Your task to perform on an android device: read, delete, or share a saved page in the chrome app Image 0: 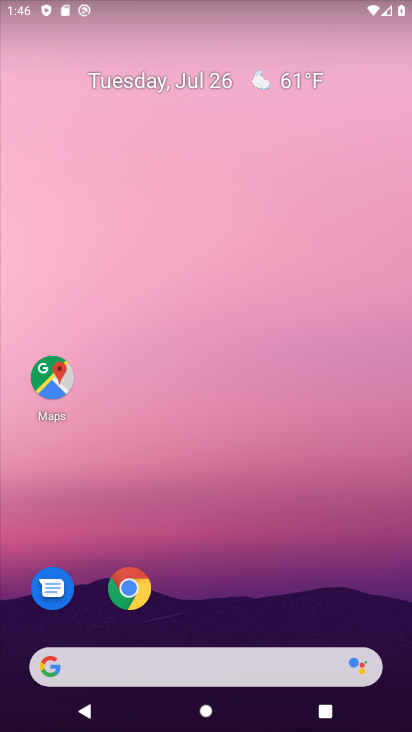
Step 0: drag from (222, 542) to (121, 0)
Your task to perform on an android device: read, delete, or share a saved page in the chrome app Image 1: 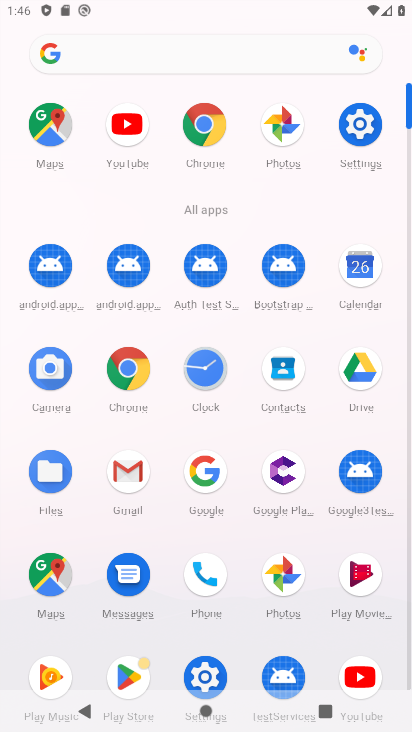
Step 1: click (193, 131)
Your task to perform on an android device: read, delete, or share a saved page in the chrome app Image 2: 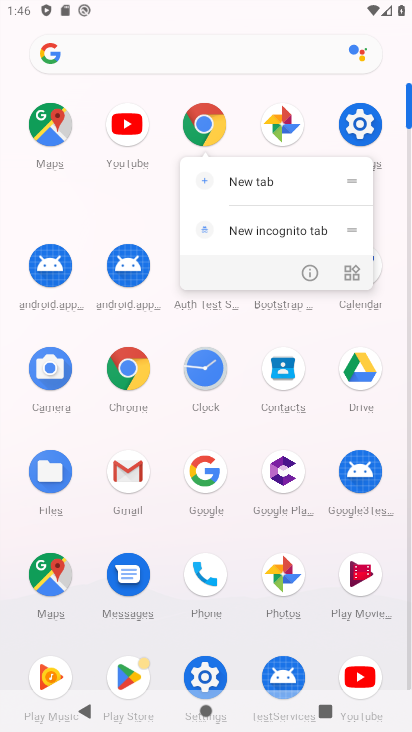
Step 2: click (193, 130)
Your task to perform on an android device: read, delete, or share a saved page in the chrome app Image 3: 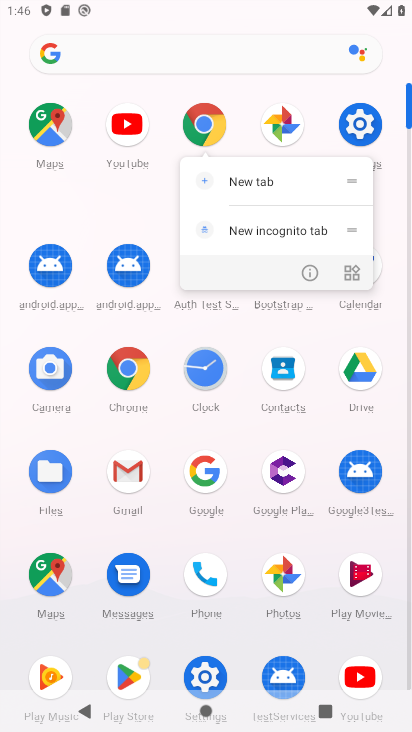
Step 3: click (215, 142)
Your task to perform on an android device: read, delete, or share a saved page in the chrome app Image 4: 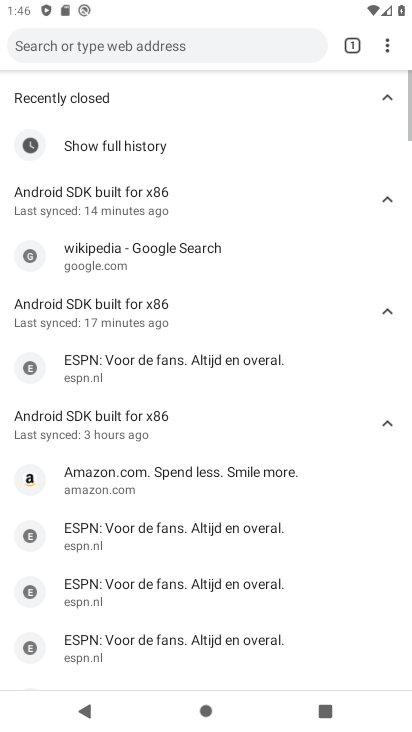
Step 4: drag from (204, 141) to (272, 474)
Your task to perform on an android device: read, delete, or share a saved page in the chrome app Image 5: 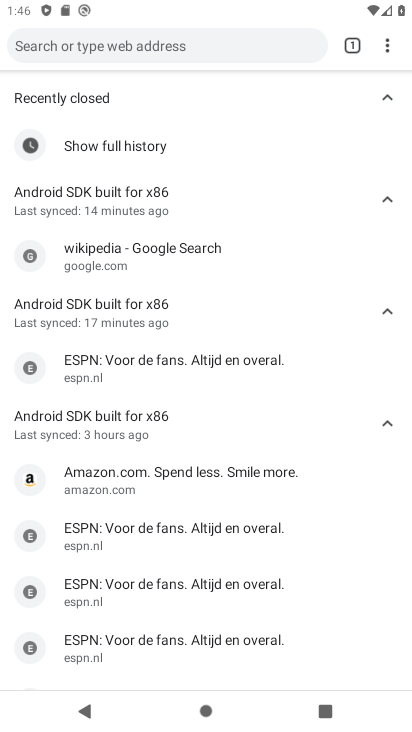
Step 5: drag from (385, 46) to (239, 301)
Your task to perform on an android device: read, delete, or share a saved page in the chrome app Image 6: 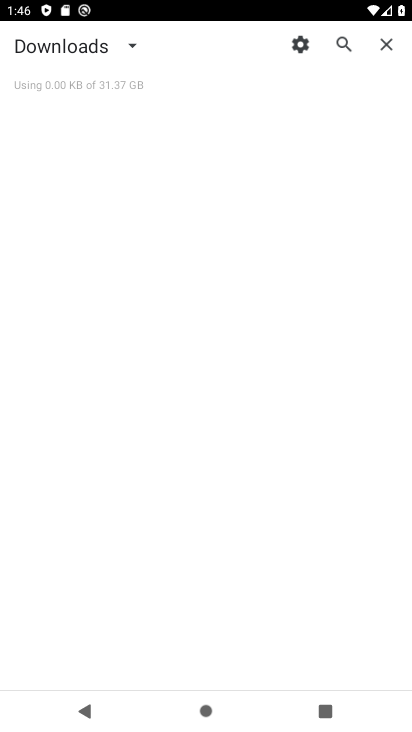
Step 6: click (135, 47)
Your task to perform on an android device: read, delete, or share a saved page in the chrome app Image 7: 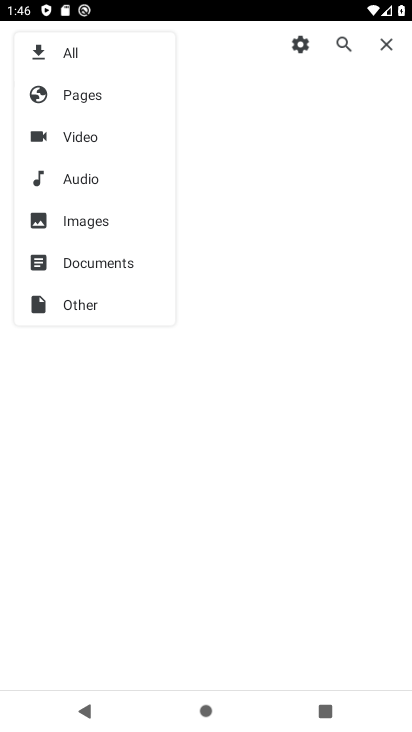
Step 7: click (102, 87)
Your task to perform on an android device: read, delete, or share a saved page in the chrome app Image 8: 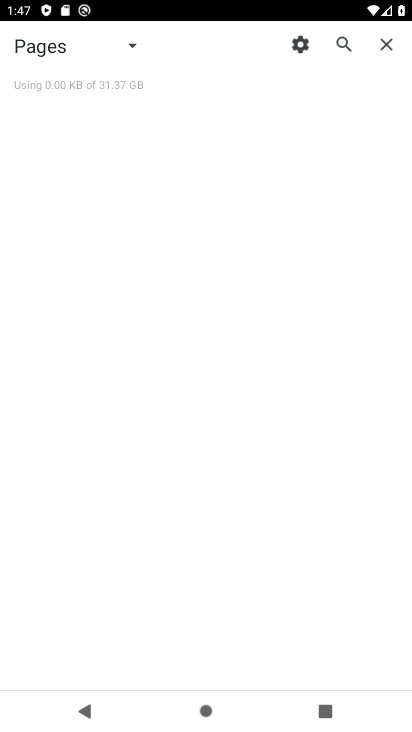
Step 8: task complete